Your task to perform on an android device: turn on javascript in the chrome app Image 0: 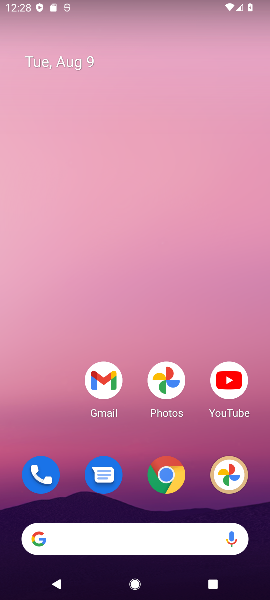
Step 0: click (162, 477)
Your task to perform on an android device: turn on javascript in the chrome app Image 1: 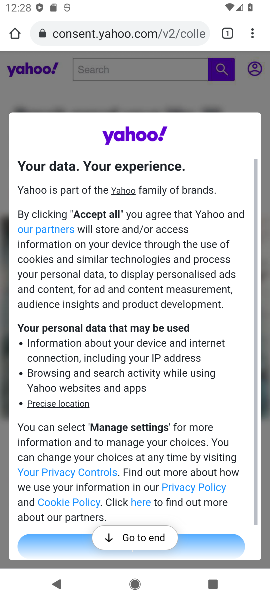
Step 1: click (255, 32)
Your task to perform on an android device: turn on javascript in the chrome app Image 2: 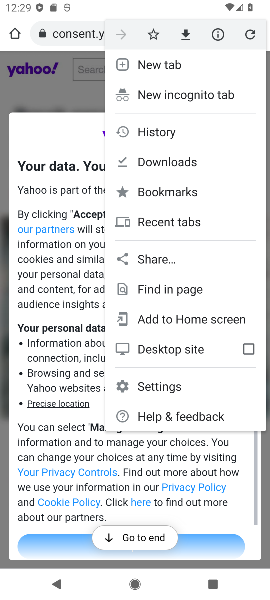
Step 2: click (159, 388)
Your task to perform on an android device: turn on javascript in the chrome app Image 3: 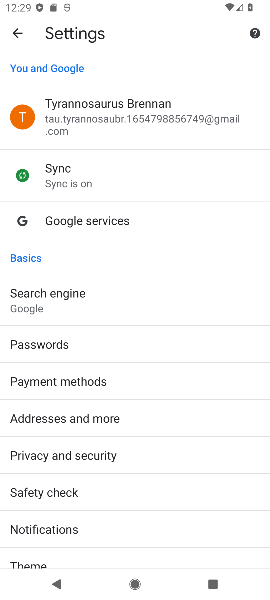
Step 3: drag from (96, 505) to (100, 171)
Your task to perform on an android device: turn on javascript in the chrome app Image 4: 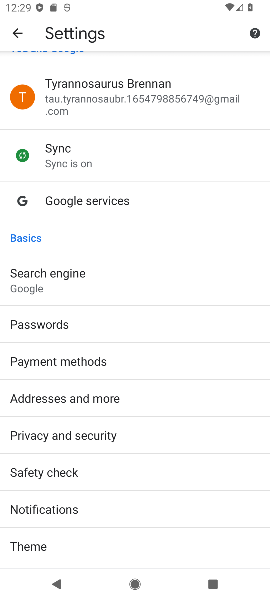
Step 4: drag from (78, 473) to (112, 136)
Your task to perform on an android device: turn on javascript in the chrome app Image 5: 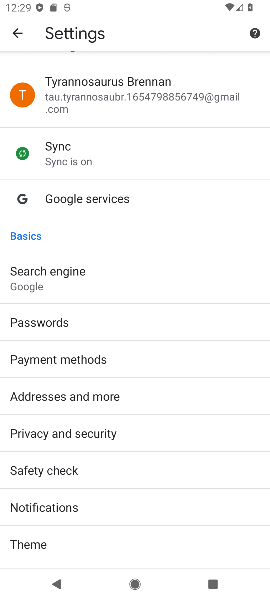
Step 5: drag from (101, 519) to (105, 152)
Your task to perform on an android device: turn on javascript in the chrome app Image 6: 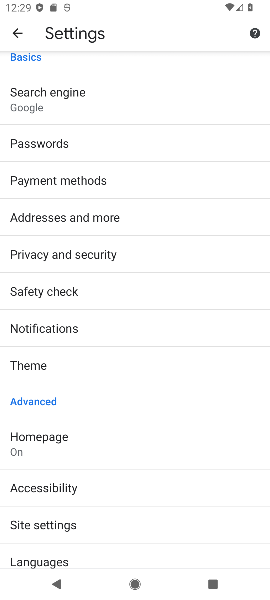
Step 6: click (76, 529)
Your task to perform on an android device: turn on javascript in the chrome app Image 7: 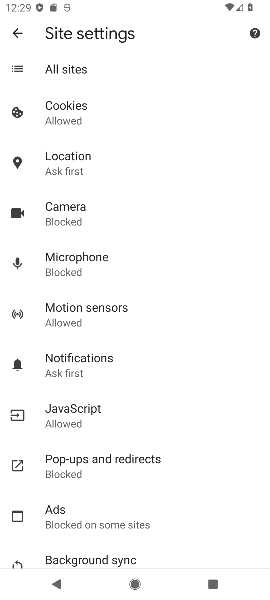
Step 7: click (81, 423)
Your task to perform on an android device: turn on javascript in the chrome app Image 8: 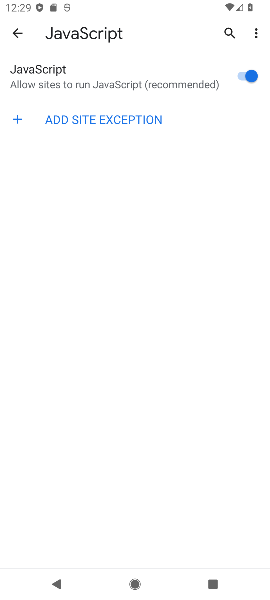
Step 8: task complete